Your task to perform on an android device: What's the weather going to be this weekend? Image 0: 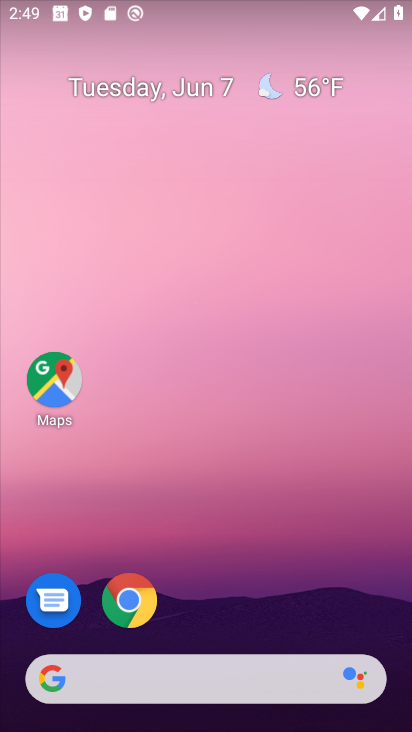
Step 0: drag from (406, 697) to (370, 193)
Your task to perform on an android device: What's the weather going to be this weekend? Image 1: 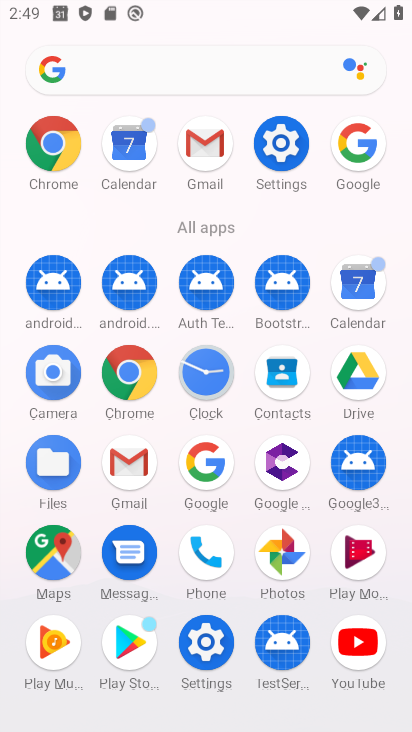
Step 1: click (216, 455)
Your task to perform on an android device: What's the weather going to be this weekend? Image 2: 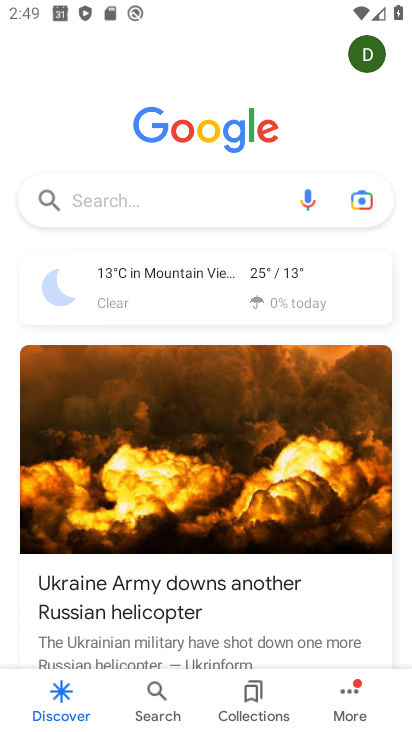
Step 2: click (283, 271)
Your task to perform on an android device: What's the weather going to be this weekend? Image 3: 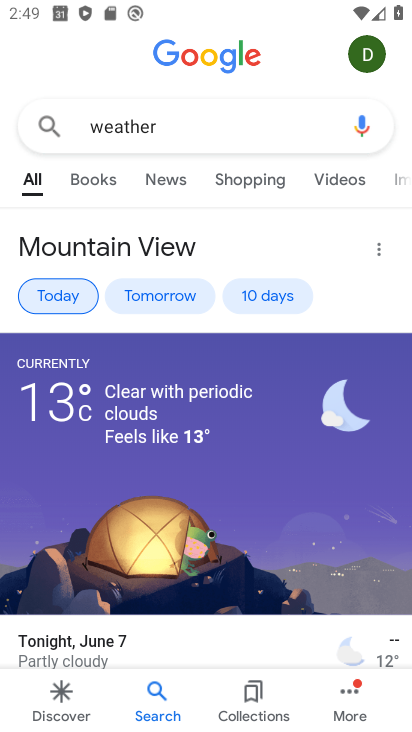
Step 3: click (276, 297)
Your task to perform on an android device: What's the weather going to be this weekend? Image 4: 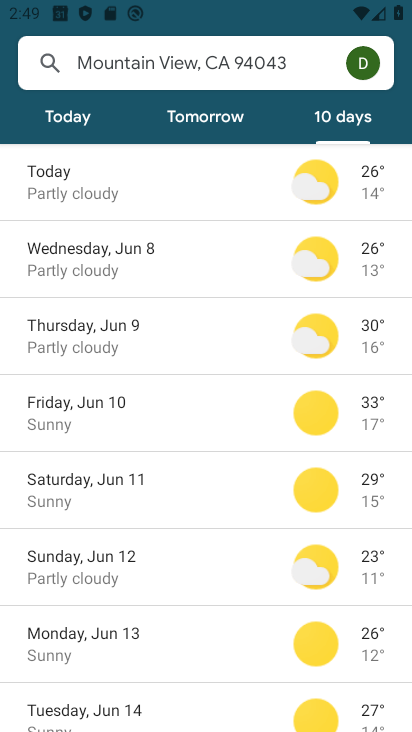
Step 4: task complete